Your task to perform on an android device: create a new album in the google photos Image 0: 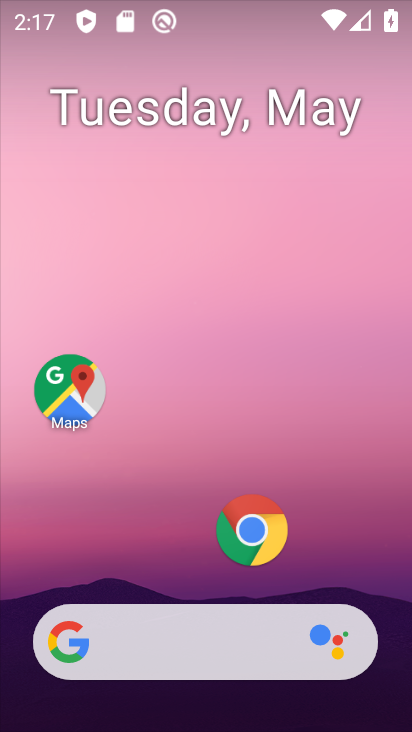
Step 0: drag from (196, 577) to (190, 43)
Your task to perform on an android device: create a new album in the google photos Image 1: 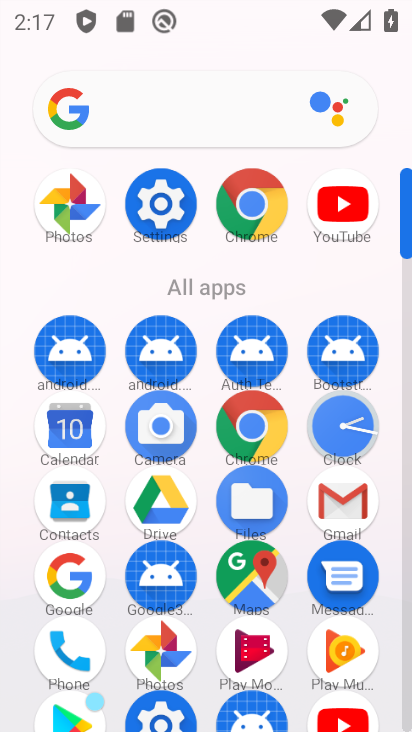
Step 1: click (159, 646)
Your task to perform on an android device: create a new album in the google photos Image 2: 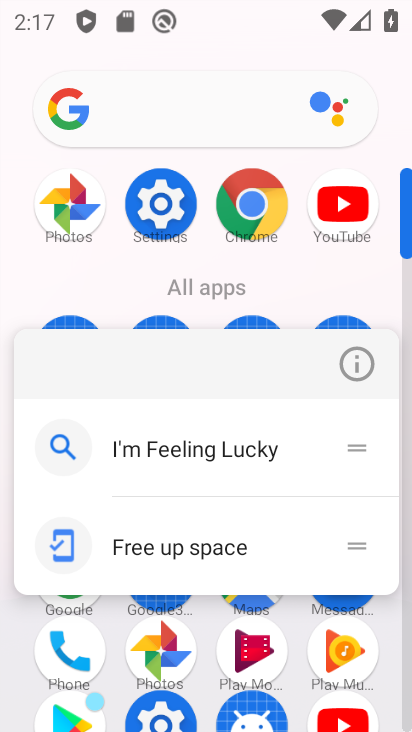
Step 2: click (159, 643)
Your task to perform on an android device: create a new album in the google photos Image 3: 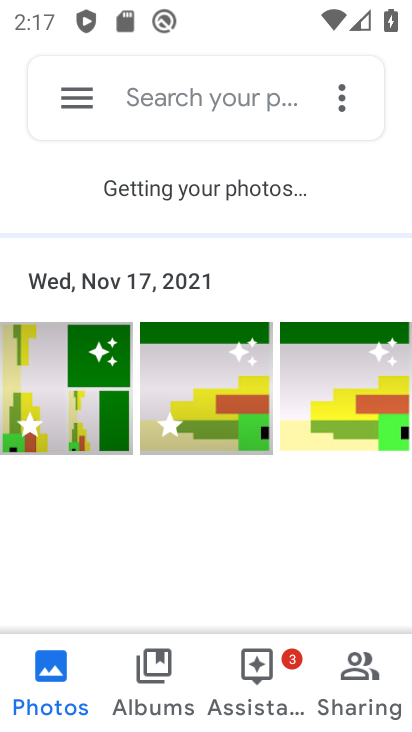
Step 3: click (139, 662)
Your task to perform on an android device: create a new album in the google photos Image 4: 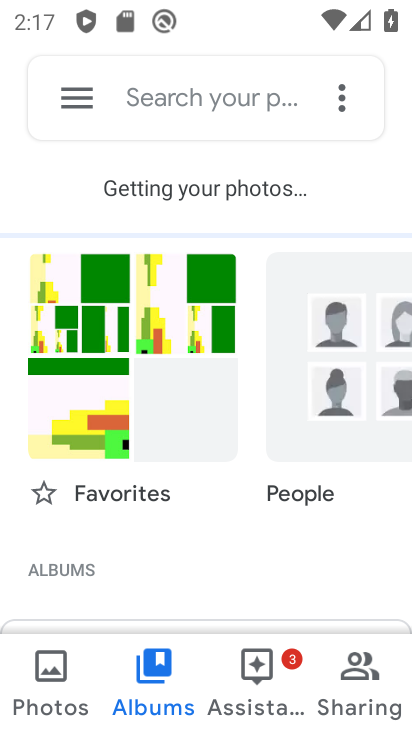
Step 4: click (333, 89)
Your task to perform on an android device: create a new album in the google photos Image 5: 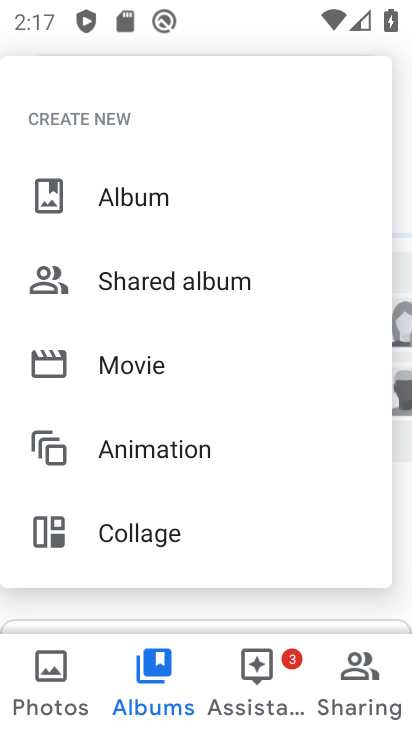
Step 5: click (163, 194)
Your task to perform on an android device: create a new album in the google photos Image 6: 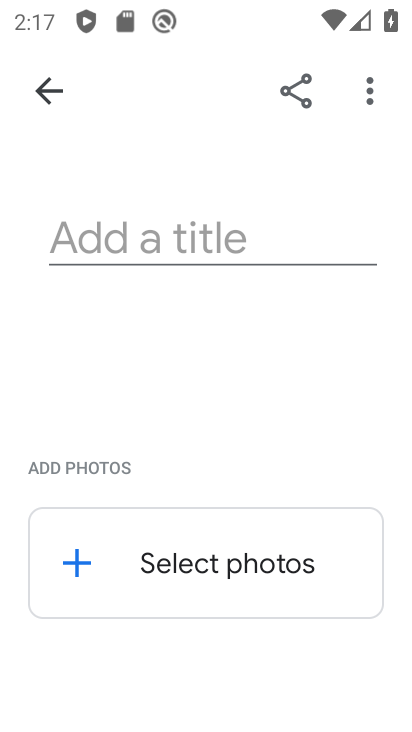
Step 6: click (90, 565)
Your task to perform on an android device: create a new album in the google photos Image 7: 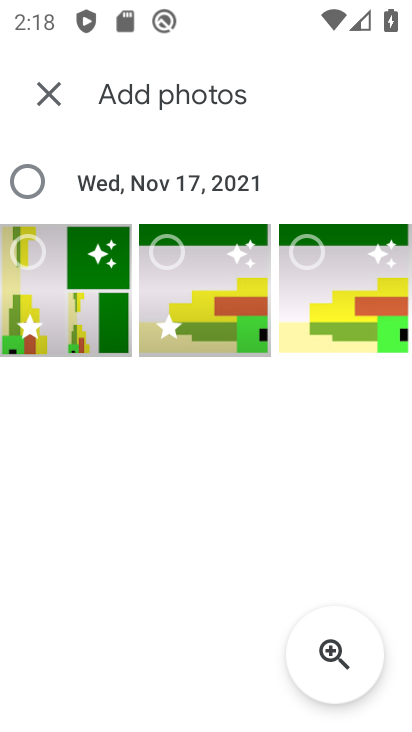
Step 7: click (25, 181)
Your task to perform on an android device: create a new album in the google photos Image 8: 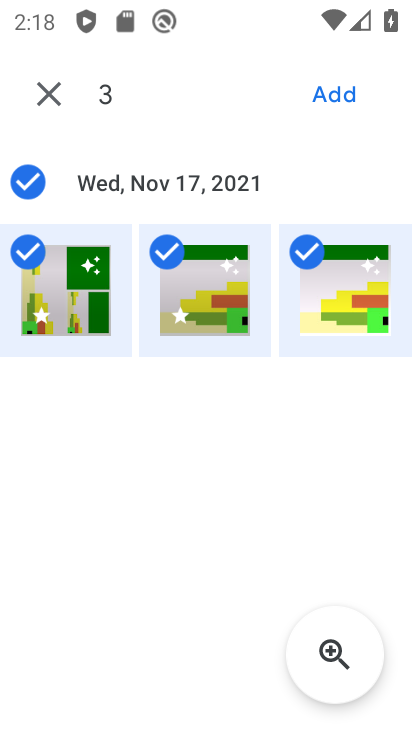
Step 8: click (332, 86)
Your task to perform on an android device: create a new album in the google photos Image 9: 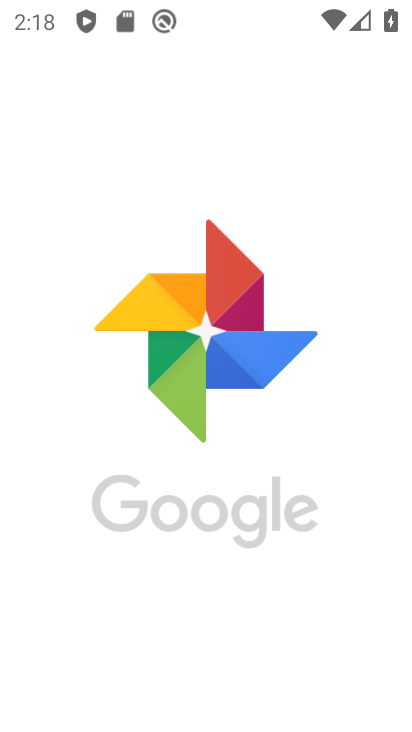
Step 9: click (168, 239)
Your task to perform on an android device: create a new album in the google photos Image 10: 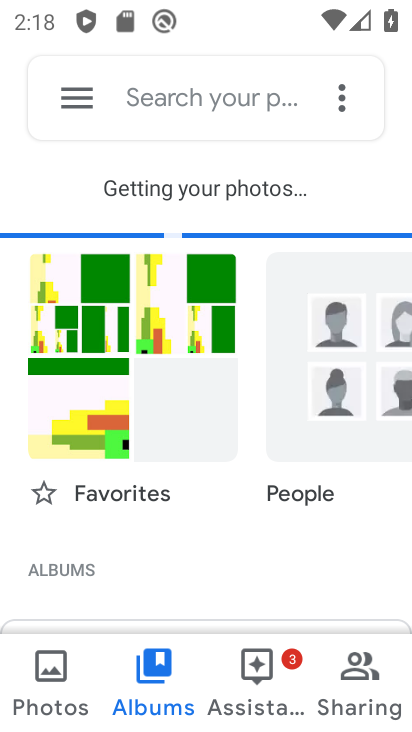
Step 10: click (344, 103)
Your task to perform on an android device: create a new album in the google photos Image 11: 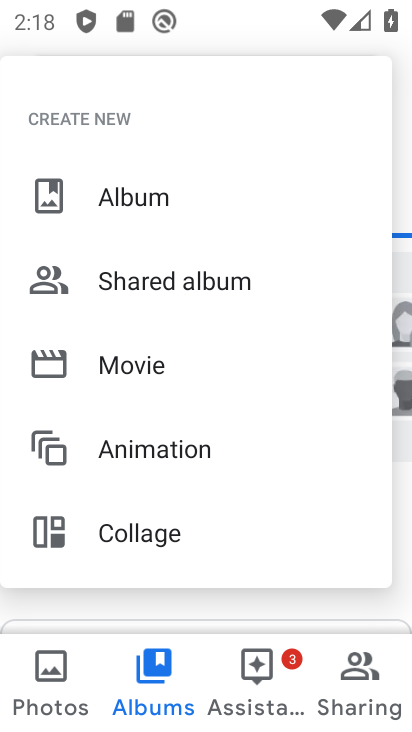
Step 11: click (120, 198)
Your task to perform on an android device: create a new album in the google photos Image 12: 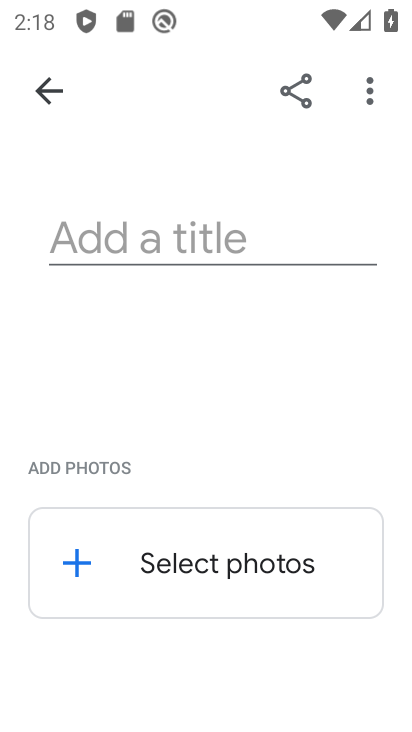
Step 12: click (61, 561)
Your task to perform on an android device: create a new album in the google photos Image 13: 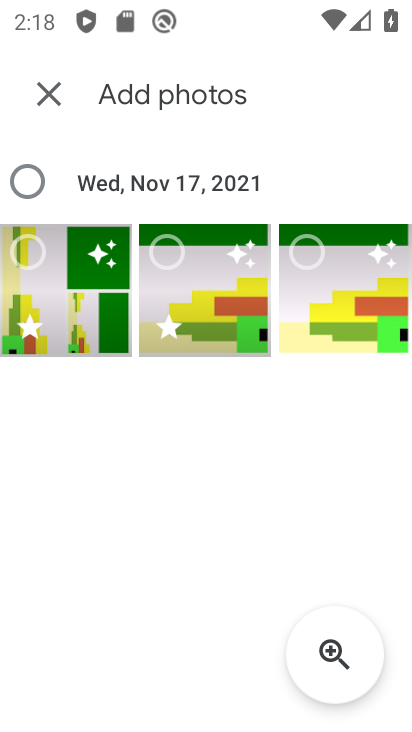
Step 13: click (32, 195)
Your task to perform on an android device: create a new album in the google photos Image 14: 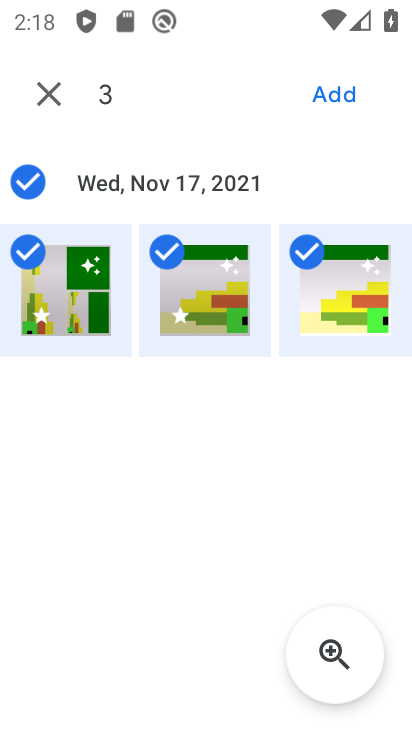
Step 14: click (341, 101)
Your task to perform on an android device: create a new album in the google photos Image 15: 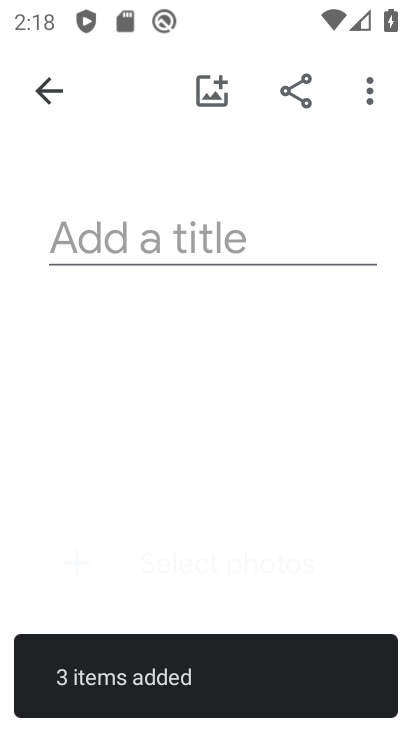
Step 15: click (184, 239)
Your task to perform on an android device: create a new album in the google photos Image 16: 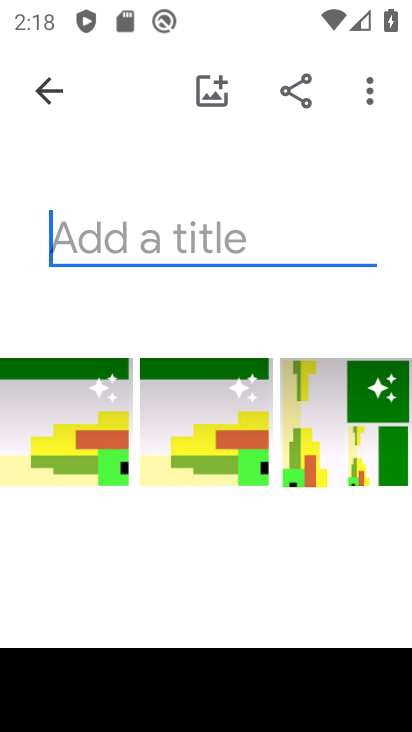
Step 16: type "gfhyjjf"
Your task to perform on an android device: create a new album in the google photos Image 17: 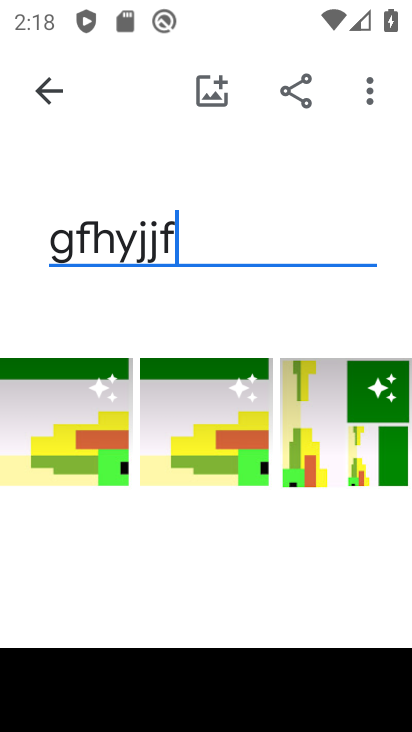
Step 17: type ""
Your task to perform on an android device: create a new album in the google photos Image 18: 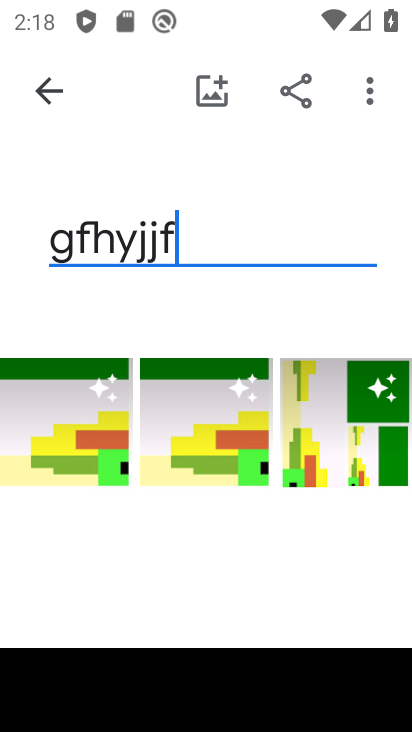
Step 18: click (313, 564)
Your task to perform on an android device: create a new album in the google photos Image 19: 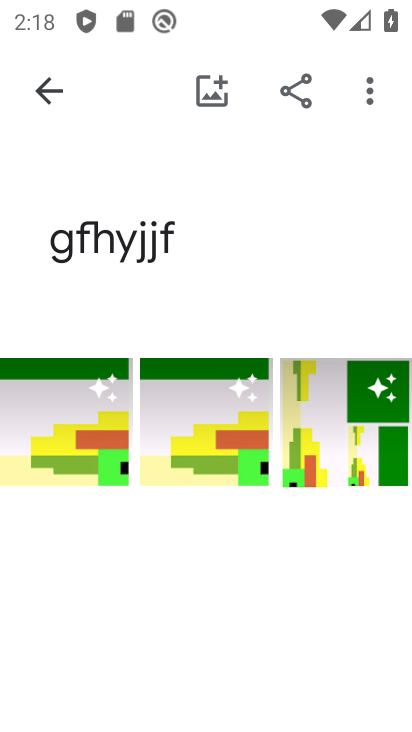
Step 19: task complete